Your task to perform on an android device: search for starred emails in the gmail app Image 0: 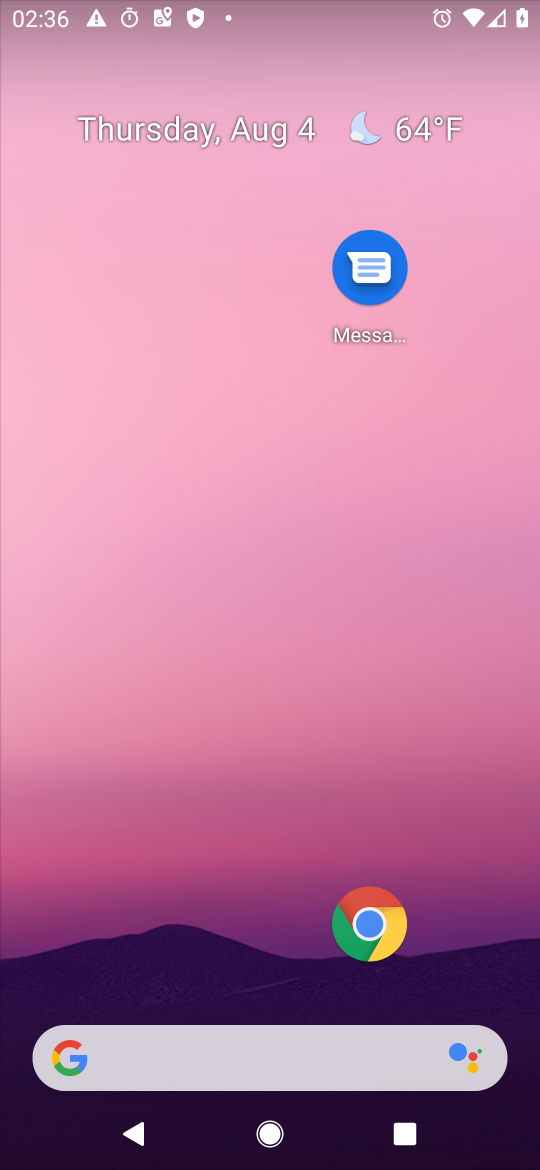
Step 0: drag from (180, 763) to (432, 210)
Your task to perform on an android device: search for starred emails in the gmail app Image 1: 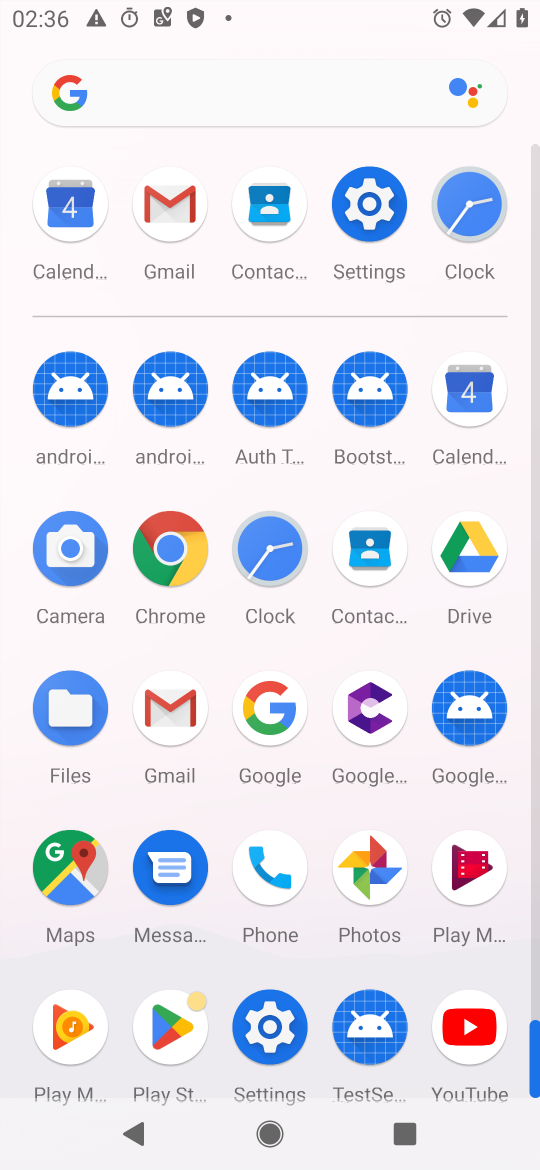
Step 1: click (155, 711)
Your task to perform on an android device: search for starred emails in the gmail app Image 2: 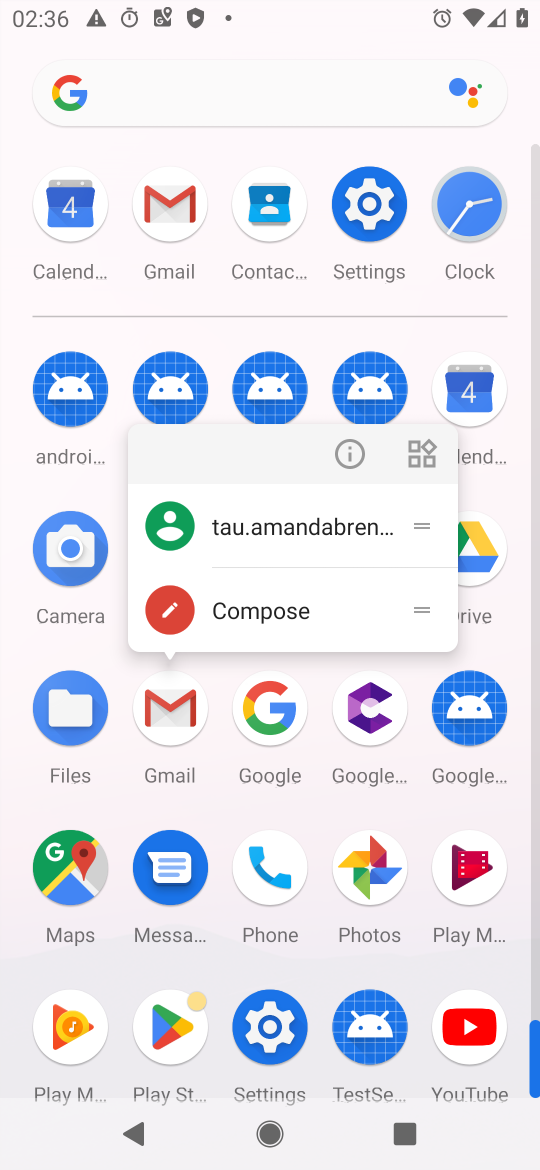
Step 2: click (174, 705)
Your task to perform on an android device: search for starred emails in the gmail app Image 3: 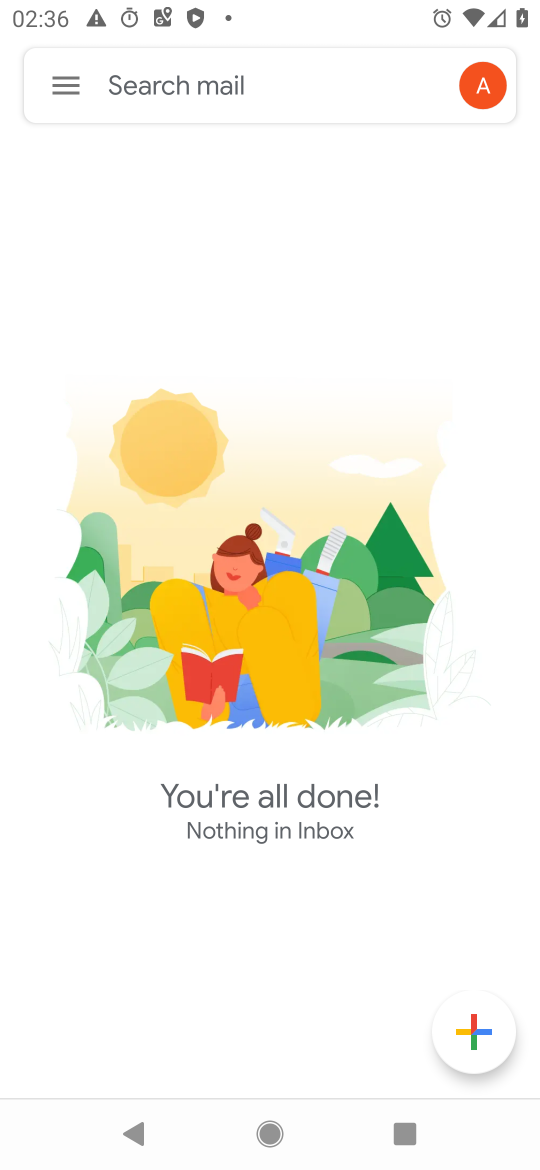
Step 3: click (62, 72)
Your task to perform on an android device: search for starred emails in the gmail app Image 4: 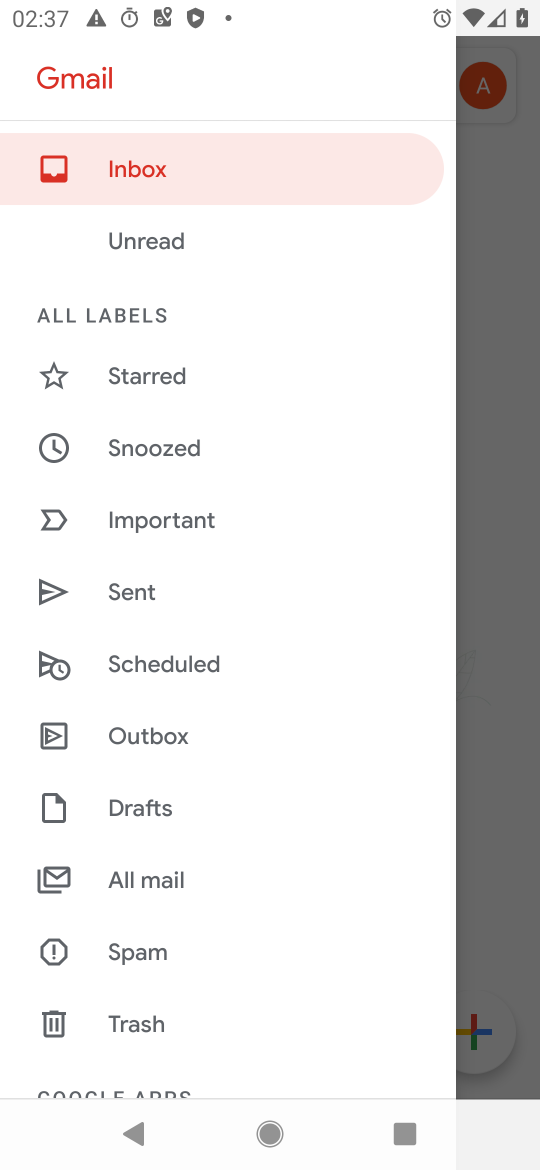
Step 4: click (137, 385)
Your task to perform on an android device: search for starred emails in the gmail app Image 5: 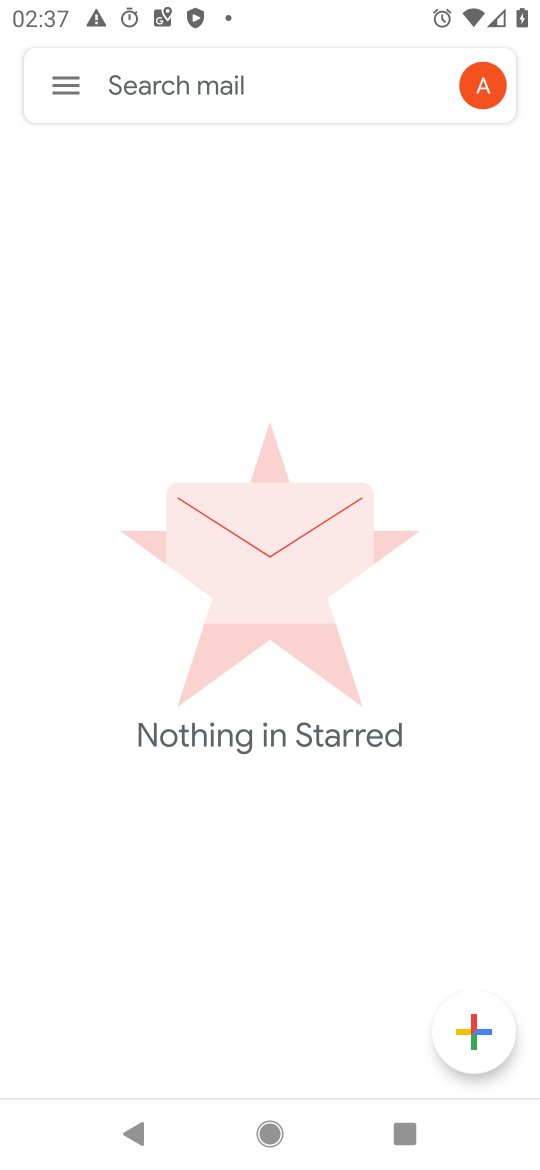
Step 5: task complete